Your task to perform on an android device: Open calendar and show me the third week of next month Image 0: 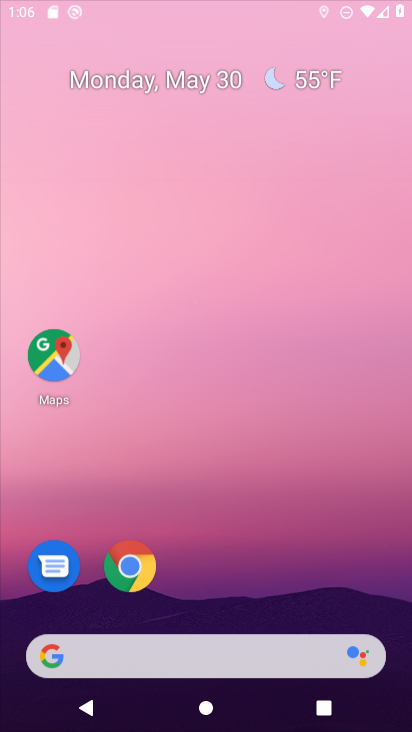
Step 0: click (49, 341)
Your task to perform on an android device: Open calendar and show me the third week of next month Image 1: 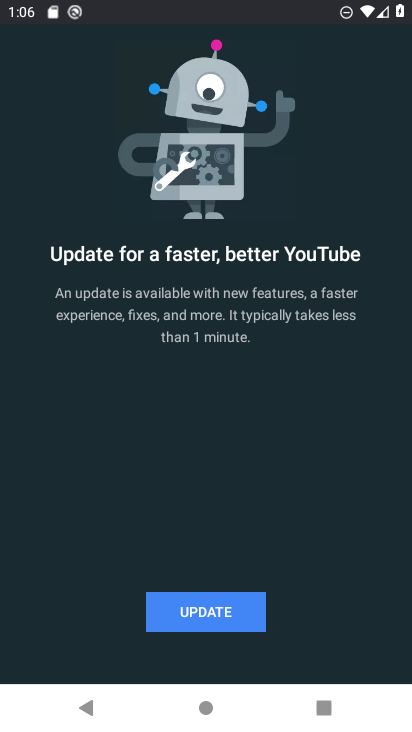
Step 1: press home button
Your task to perform on an android device: Open calendar and show me the third week of next month Image 2: 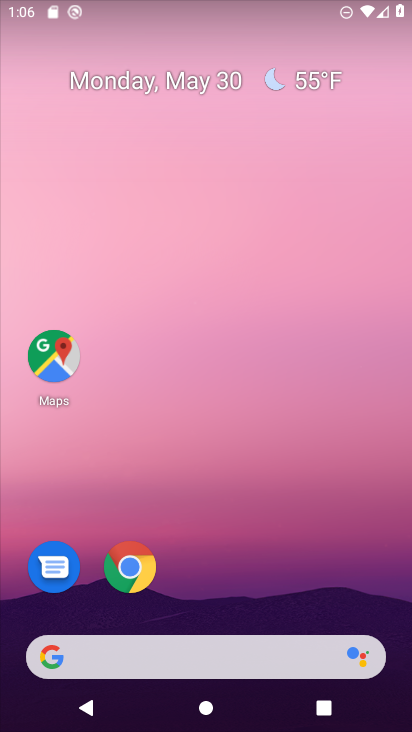
Step 2: drag from (208, 616) to (201, 220)
Your task to perform on an android device: Open calendar and show me the third week of next month Image 3: 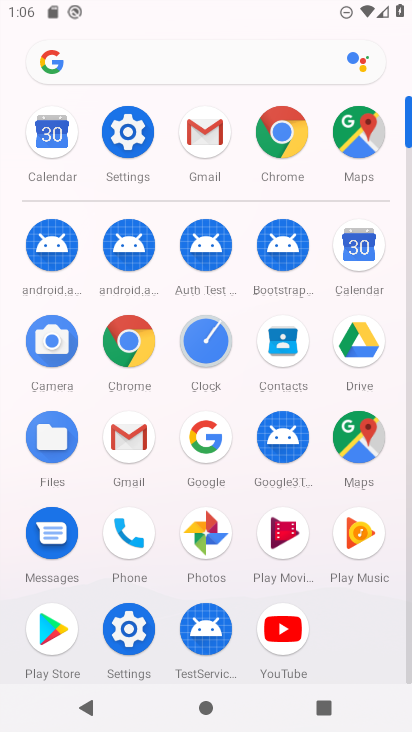
Step 3: click (358, 241)
Your task to perform on an android device: Open calendar and show me the third week of next month Image 4: 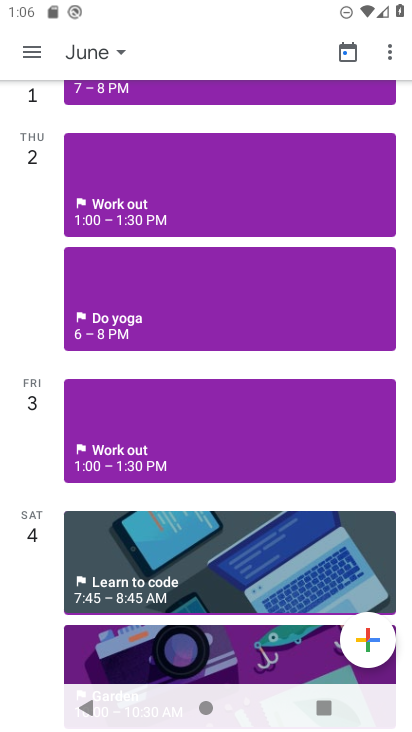
Step 4: click (25, 57)
Your task to perform on an android device: Open calendar and show me the third week of next month Image 5: 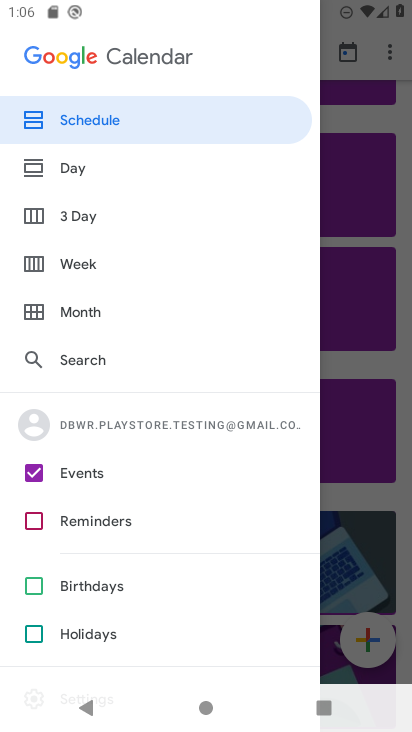
Step 5: click (104, 262)
Your task to perform on an android device: Open calendar and show me the third week of next month Image 6: 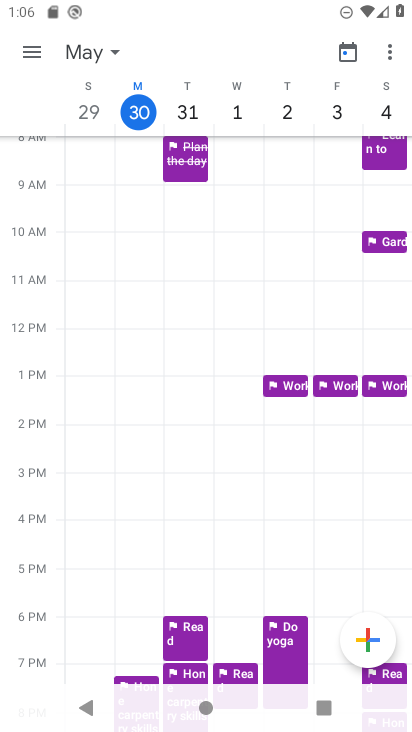
Step 6: click (380, 107)
Your task to perform on an android device: Open calendar and show me the third week of next month Image 7: 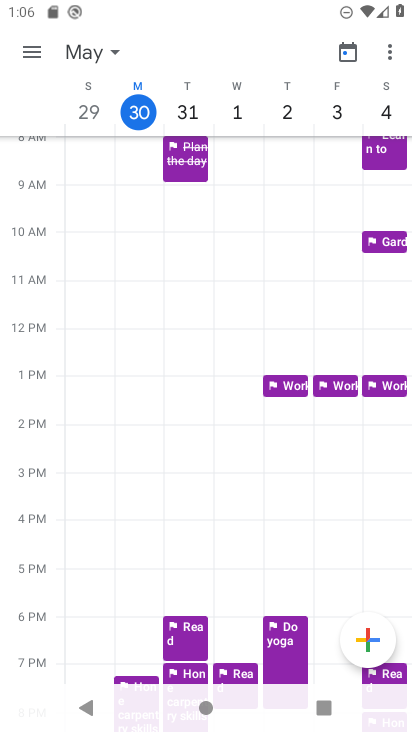
Step 7: drag from (334, 102) to (13, 119)
Your task to perform on an android device: Open calendar and show me the third week of next month Image 8: 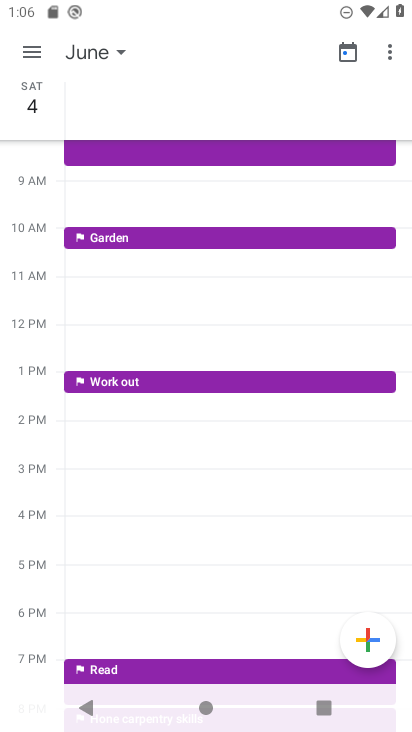
Step 8: click (120, 50)
Your task to perform on an android device: Open calendar and show me the third week of next month Image 9: 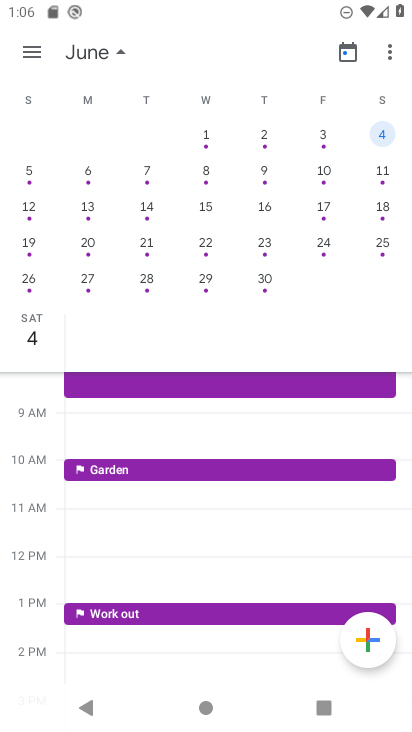
Step 9: click (26, 211)
Your task to perform on an android device: Open calendar and show me the third week of next month Image 10: 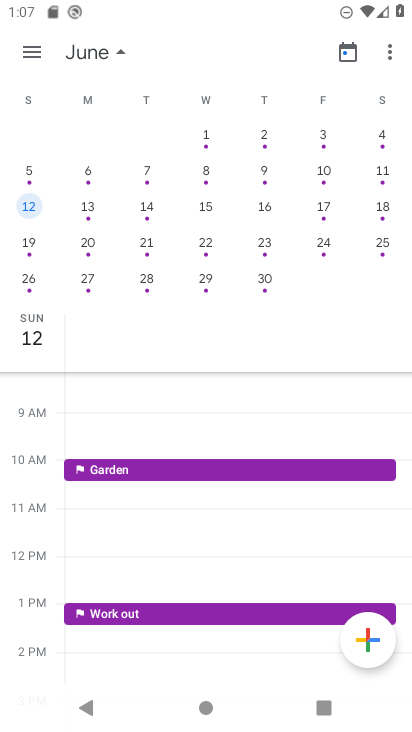
Step 10: click (119, 53)
Your task to perform on an android device: Open calendar and show me the third week of next month Image 11: 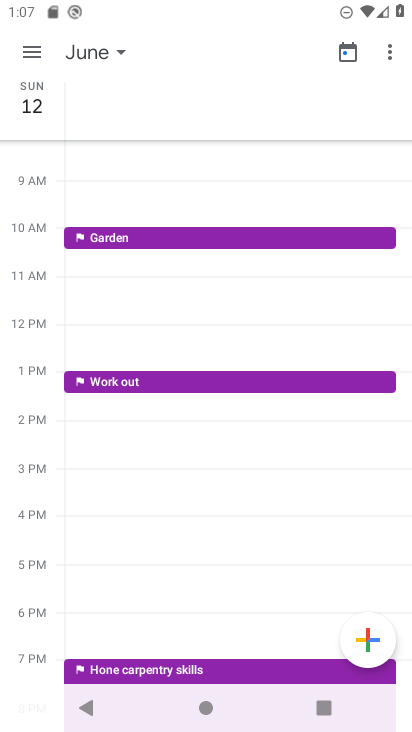
Step 11: click (41, 115)
Your task to perform on an android device: Open calendar and show me the third week of next month Image 12: 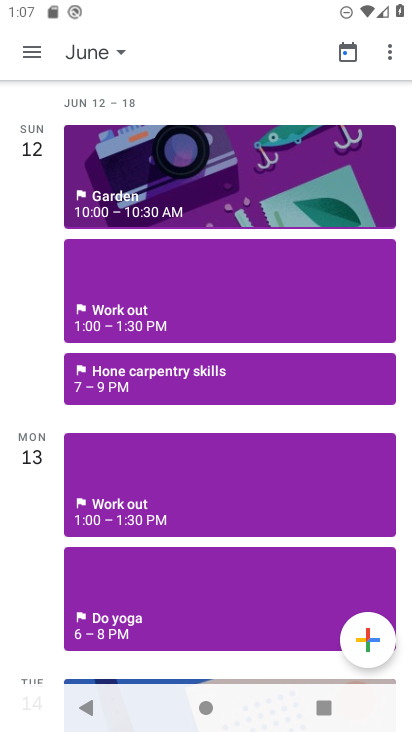
Step 12: task complete